Your task to perform on an android device: Go to Google maps Image 0: 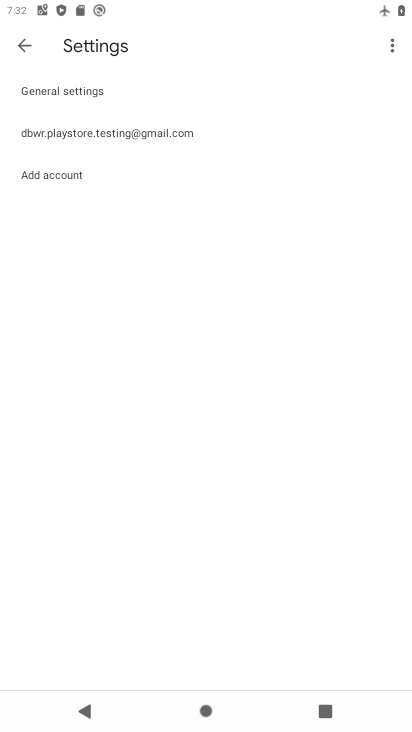
Step 0: press home button
Your task to perform on an android device: Go to Google maps Image 1: 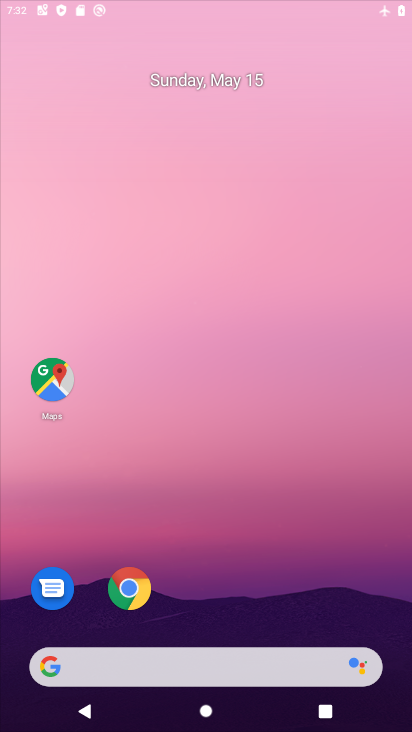
Step 1: drag from (379, 602) to (253, 35)
Your task to perform on an android device: Go to Google maps Image 2: 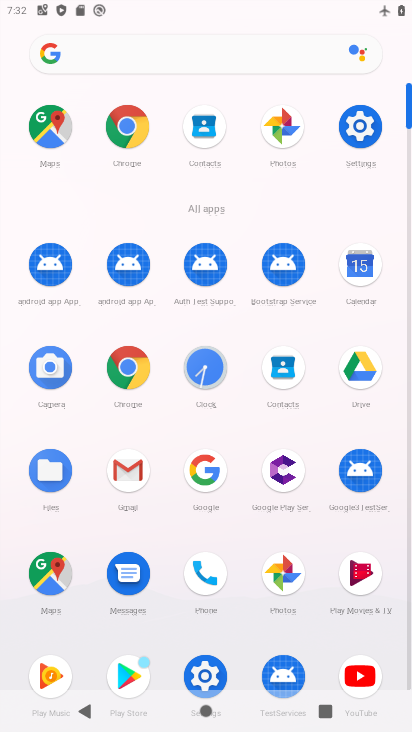
Step 2: click (47, 554)
Your task to perform on an android device: Go to Google maps Image 3: 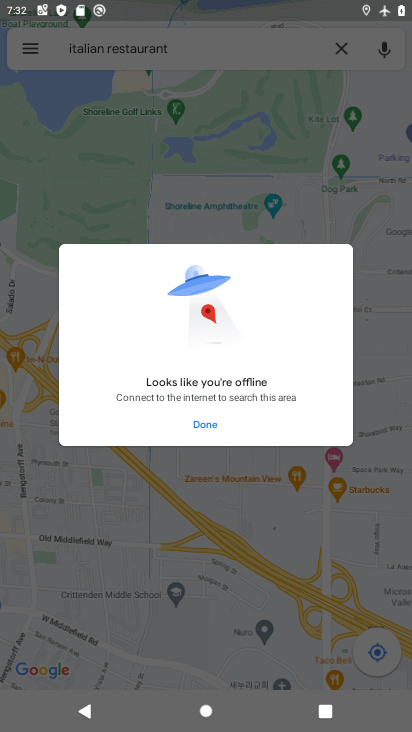
Step 3: press back button
Your task to perform on an android device: Go to Google maps Image 4: 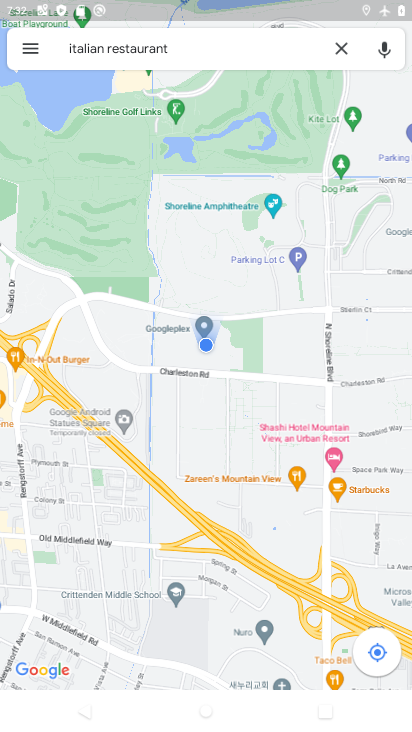
Step 4: click (341, 52)
Your task to perform on an android device: Go to Google maps Image 5: 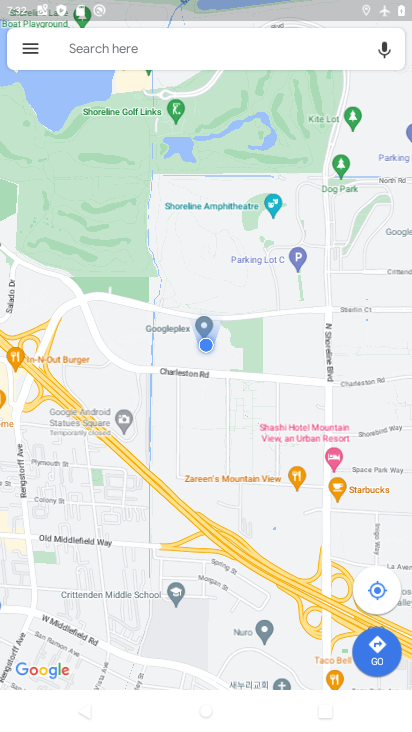
Step 5: task complete